Your task to perform on an android device: Open calendar and show me the fourth week of next month Image 0: 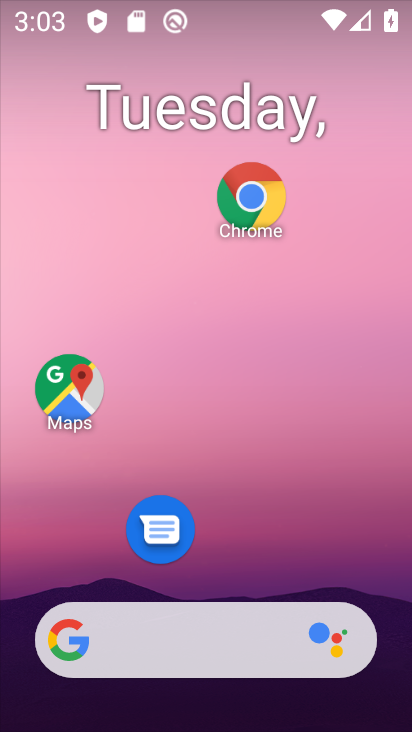
Step 0: drag from (239, 601) to (239, 231)
Your task to perform on an android device: Open calendar and show me the fourth week of next month Image 1: 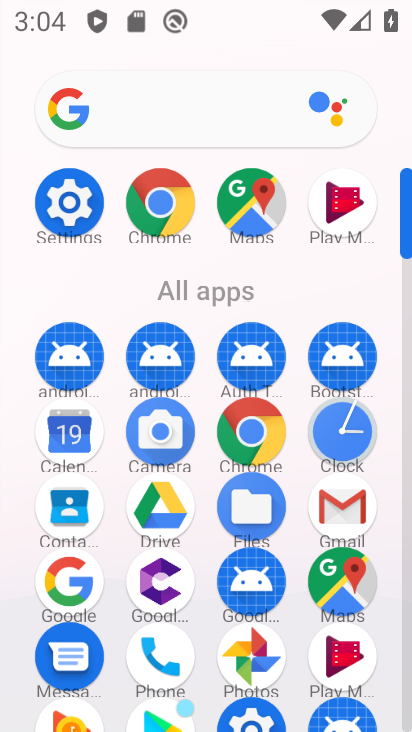
Step 1: click (64, 425)
Your task to perform on an android device: Open calendar and show me the fourth week of next month Image 2: 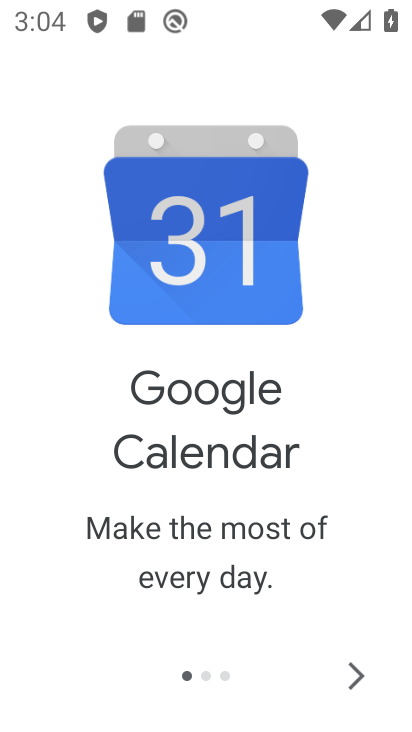
Step 2: click (354, 678)
Your task to perform on an android device: Open calendar and show me the fourth week of next month Image 3: 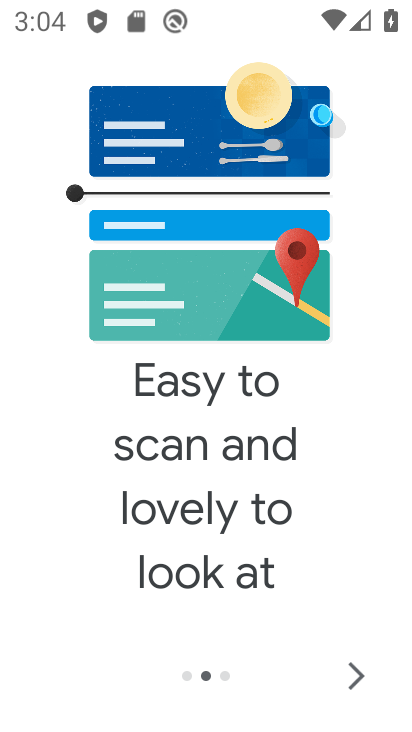
Step 3: click (354, 678)
Your task to perform on an android device: Open calendar and show me the fourth week of next month Image 4: 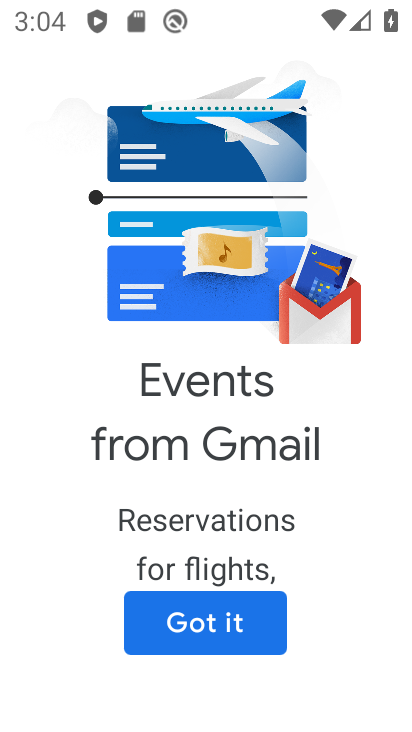
Step 4: click (210, 623)
Your task to perform on an android device: Open calendar and show me the fourth week of next month Image 5: 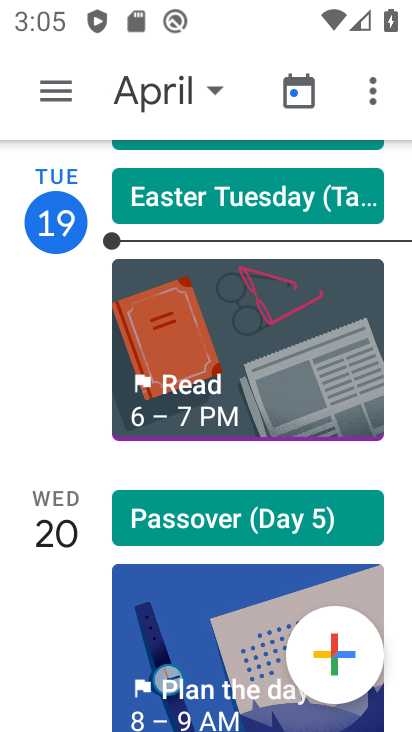
Step 5: click (139, 96)
Your task to perform on an android device: Open calendar and show me the fourth week of next month Image 6: 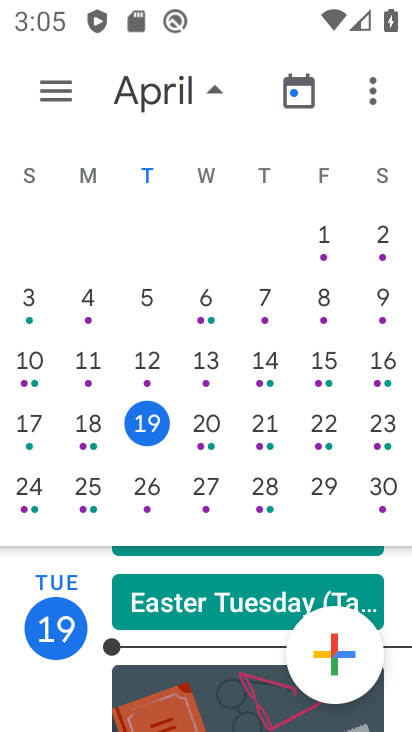
Step 6: drag from (373, 425) to (0, 474)
Your task to perform on an android device: Open calendar and show me the fourth week of next month Image 7: 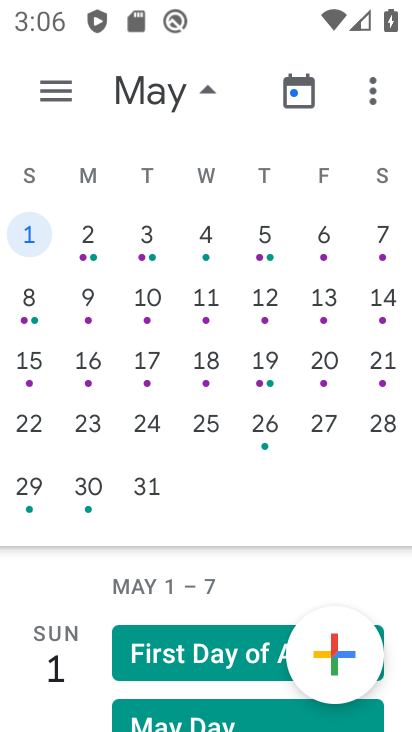
Step 7: click (31, 429)
Your task to perform on an android device: Open calendar and show me the fourth week of next month Image 8: 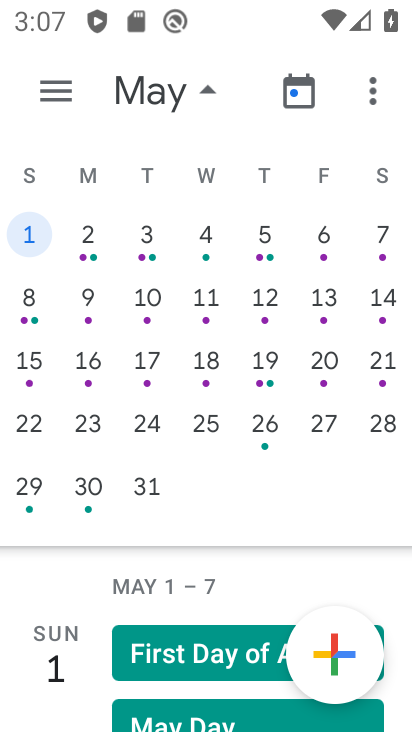
Step 8: click (31, 431)
Your task to perform on an android device: Open calendar and show me the fourth week of next month Image 9: 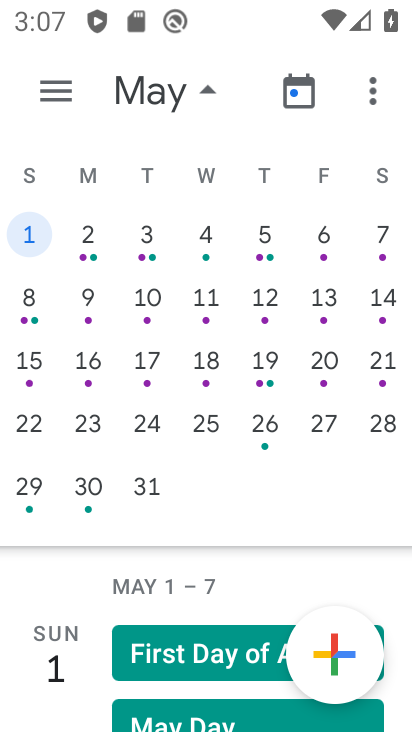
Step 9: click (31, 427)
Your task to perform on an android device: Open calendar and show me the fourth week of next month Image 10: 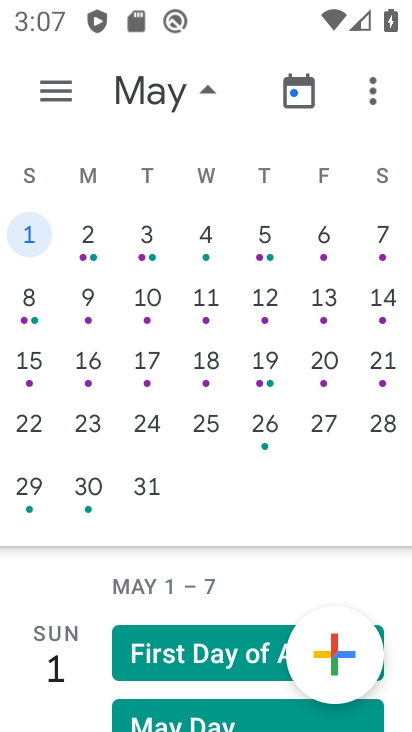
Step 10: click (93, 422)
Your task to perform on an android device: Open calendar and show me the fourth week of next month Image 11: 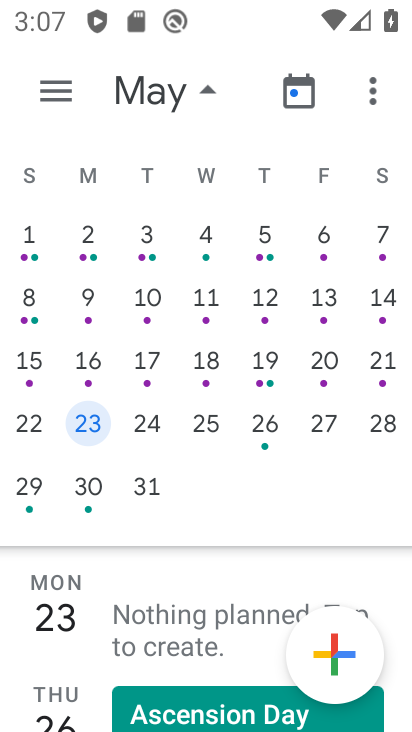
Step 11: task complete